Your task to perform on an android device: turn on airplane mode Image 0: 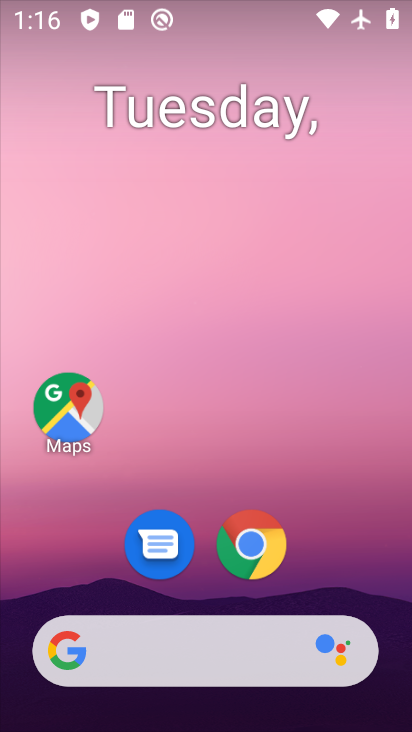
Step 0: drag from (402, 634) to (293, 86)
Your task to perform on an android device: turn on airplane mode Image 1: 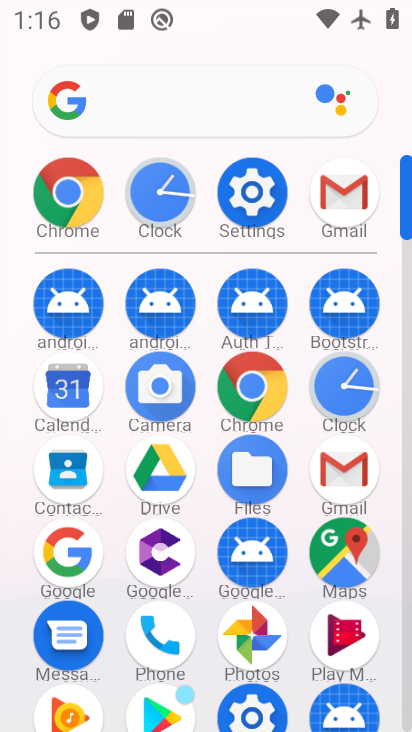
Step 1: click (408, 687)
Your task to perform on an android device: turn on airplane mode Image 2: 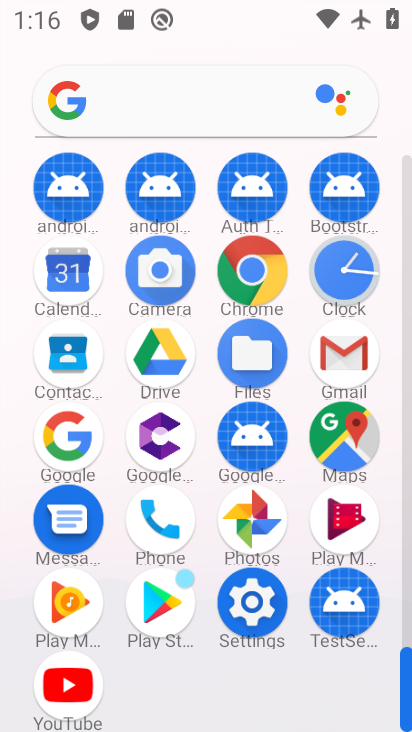
Step 2: click (252, 599)
Your task to perform on an android device: turn on airplane mode Image 3: 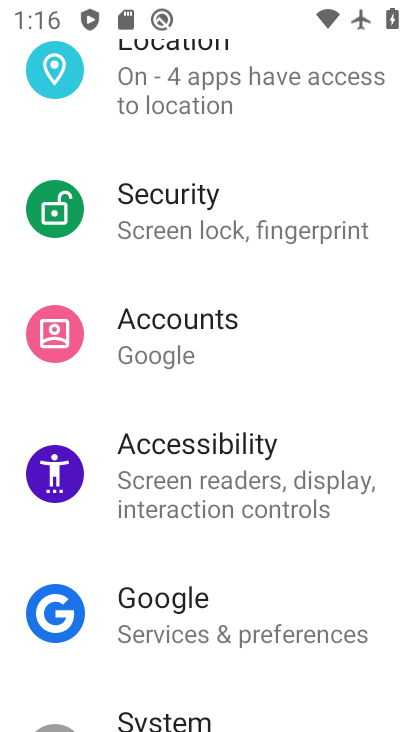
Step 3: drag from (337, 171) to (358, 512)
Your task to perform on an android device: turn on airplane mode Image 4: 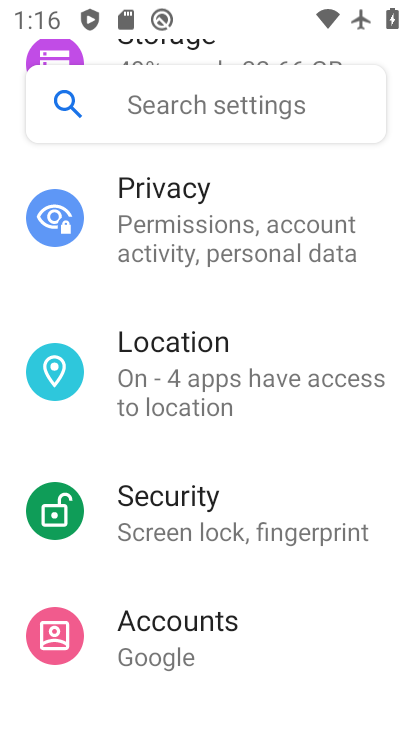
Step 4: drag from (379, 192) to (338, 612)
Your task to perform on an android device: turn on airplane mode Image 5: 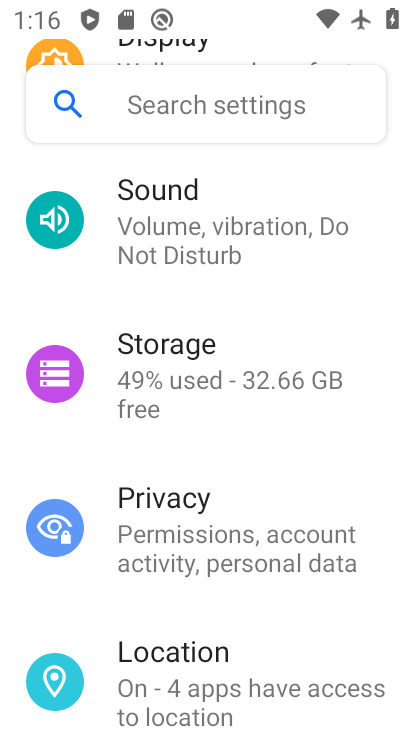
Step 5: drag from (378, 191) to (344, 565)
Your task to perform on an android device: turn on airplane mode Image 6: 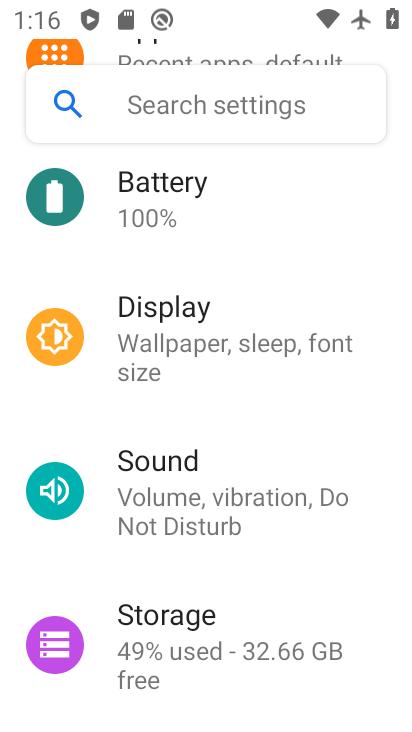
Step 6: drag from (327, 232) to (365, 706)
Your task to perform on an android device: turn on airplane mode Image 7: 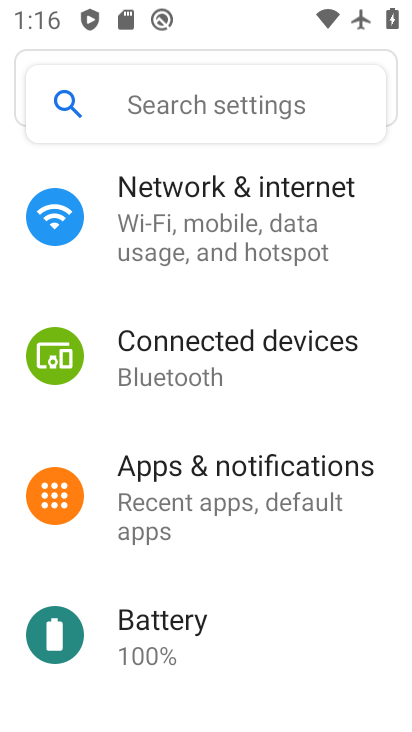
Step 7: click (182, 223)
Your task to perform on an android device: turn on airplane mode Image 8: 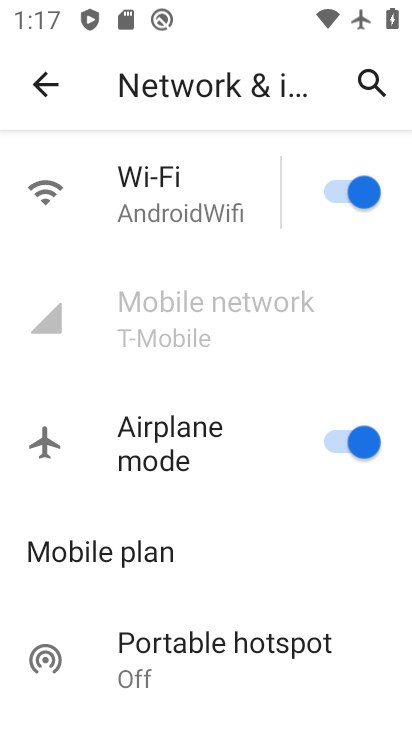
Step 8: task complete